Your task to perform on an android device: turn off wifi Image 0: 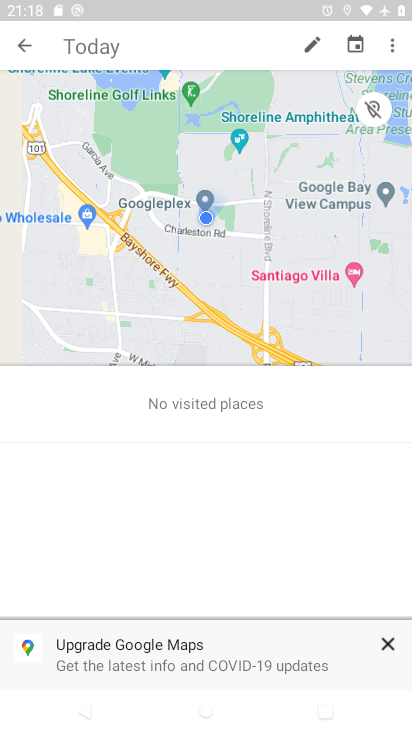
Step 0: press home button
Your task to perform on an android device: turn off wifi Image 1: 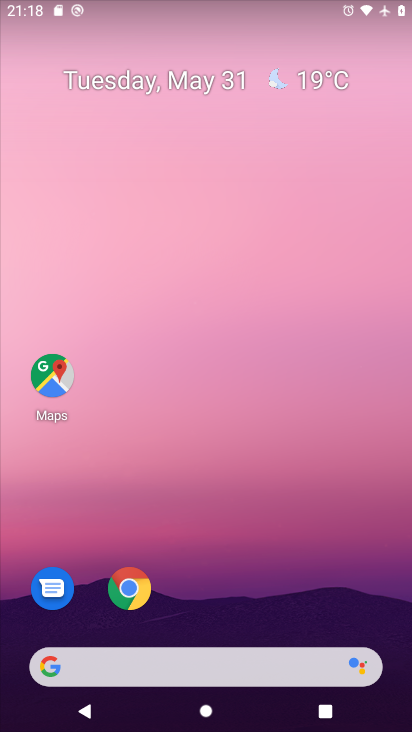
Step 1: drag from (187, 663) to (320, 33)
Your task to perform on an android device: turn off wifi Image 2: 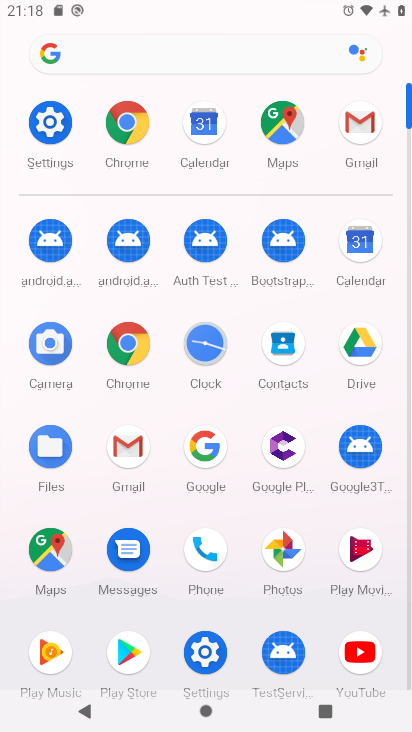
Step 2: click (46, 141)
Your task to perform on an android device: turn off wifi Image 3: 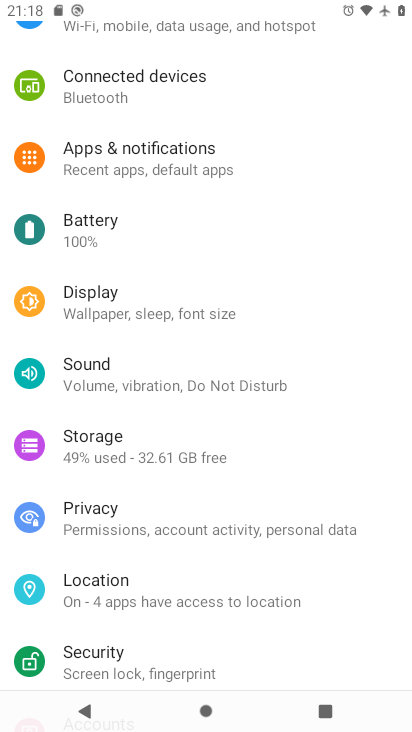
Step 3: drag from (306, 81) to (227, 456)
Your task to perform on an android device: turn off wifi Image 4: 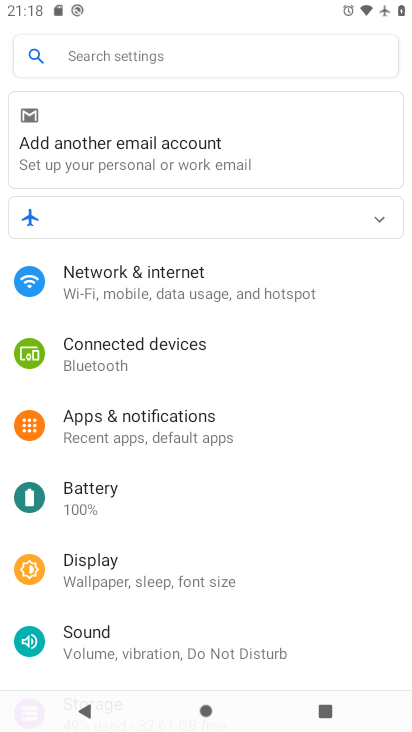
Step 4: click (181, 280)
Your task to perform on an android device: turn off wifi Image 5: 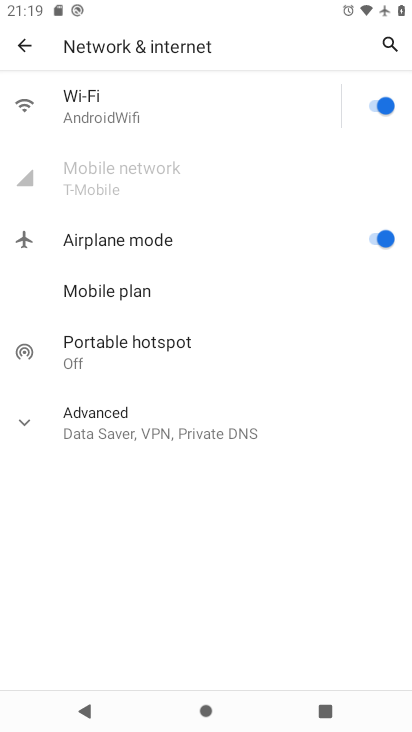
Step 5: click (371, 107)
Your task to perform on an android device: turn off wifi Image 6: 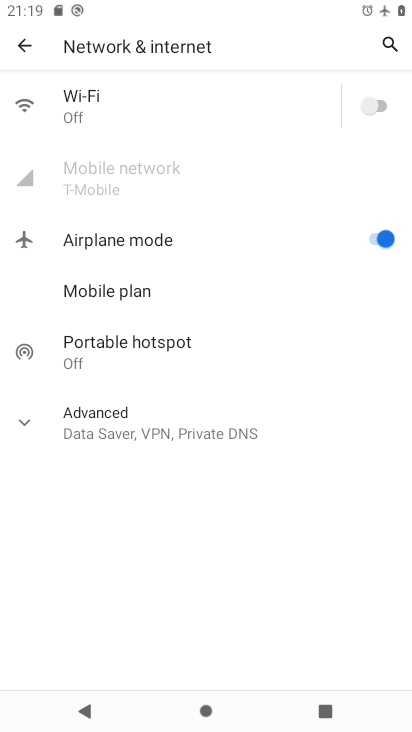
Step 6: task complete